Your task to perform on an android device: Go to CNN.com Image 0: 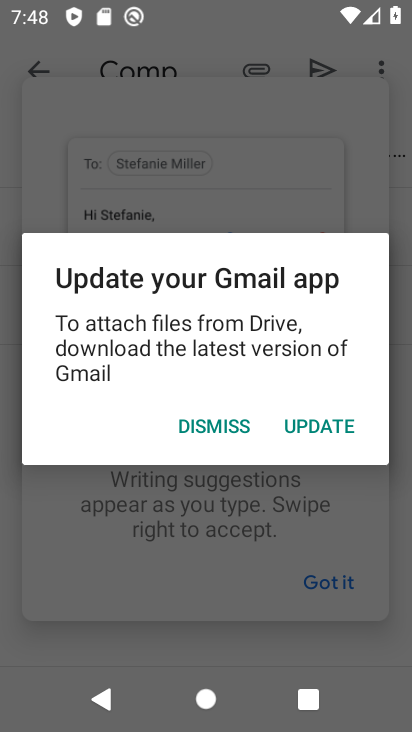
Step 0: press home button
Your task to perform on an android device: Go to CNN.com Image 1: 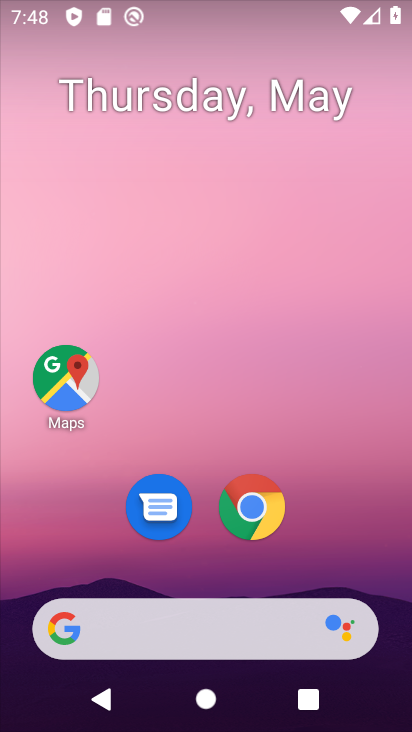
Step 1: click (246, 516)
Your task to perform on an android device: Go to CNN.com Image 2: 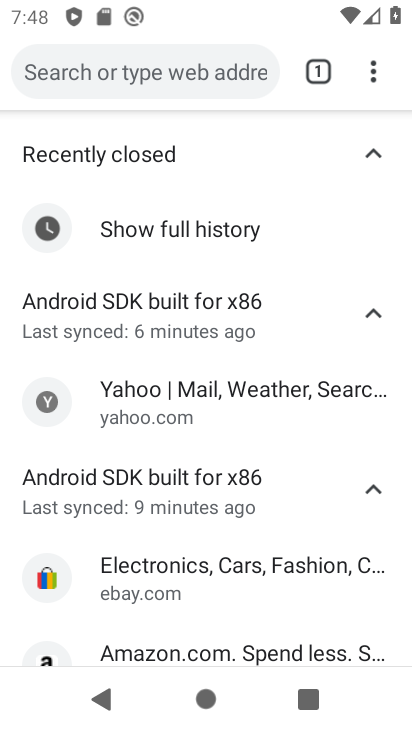
Step 2: click (104, 77)
Your task to perform on an android device: Go to CNN.com Image 3: 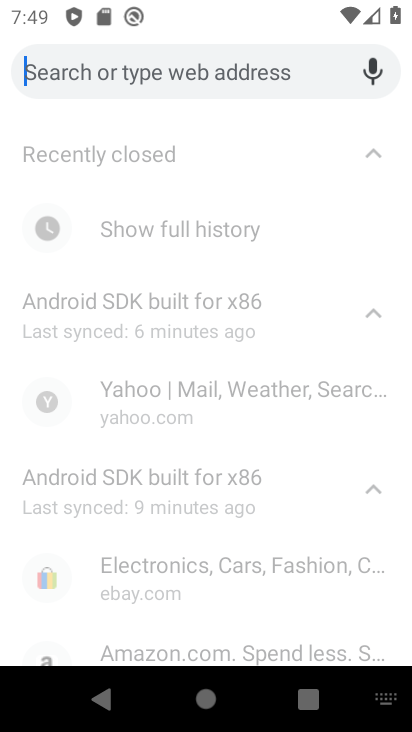
Step 3: type "cnn..om"
Your task to perform on an android device: Go to CNN.com Image 4: 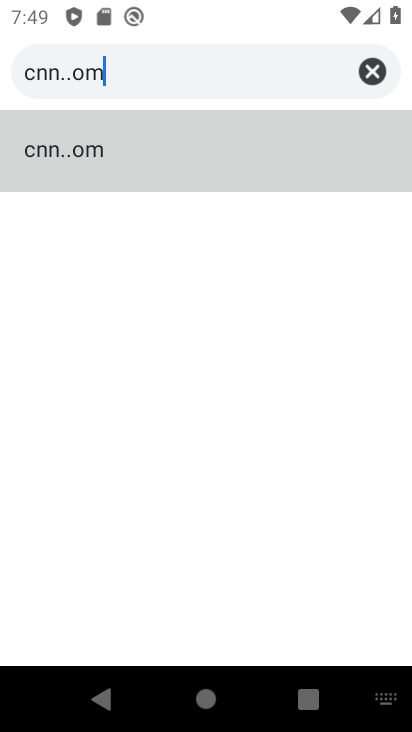
Step 4: click (372, 66)
Your task to perform on an android device: Go to CNN.com Image 5: 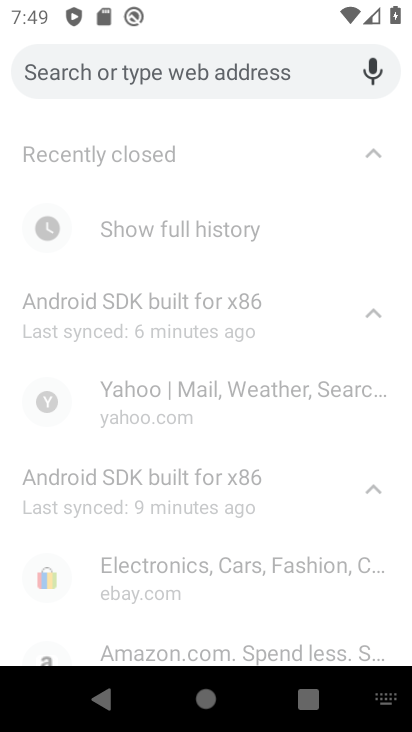
Step 5: type "cnn.com"
Your task to perform on an android device: Go to CNN.com Image 6: 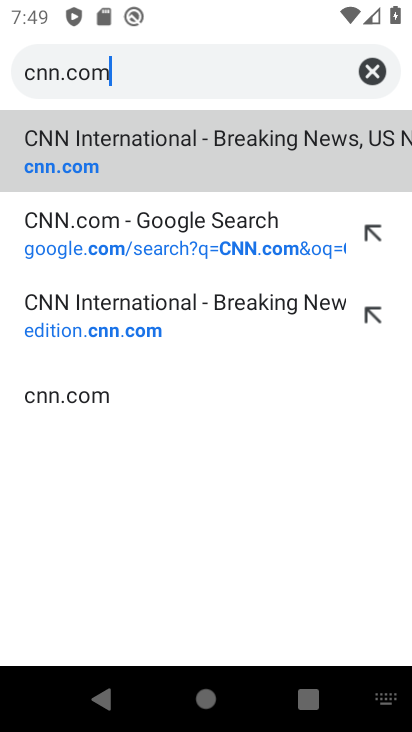
Step 6: click (73, 171)
Your task to perform on an android device: Go to CNN.com Image 7: 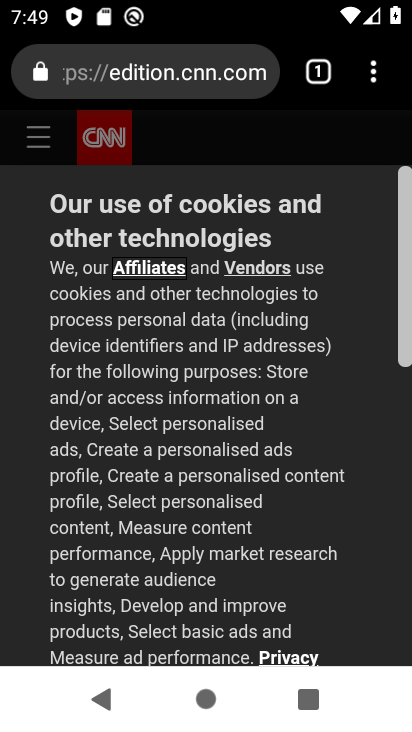
Step 7: task complete